Your task to perform on an android device: Empty the shopping cart on ebay. Search for "usb-a" on ebay, select the first entry, add it to the cart, then select checkout. Image 0: 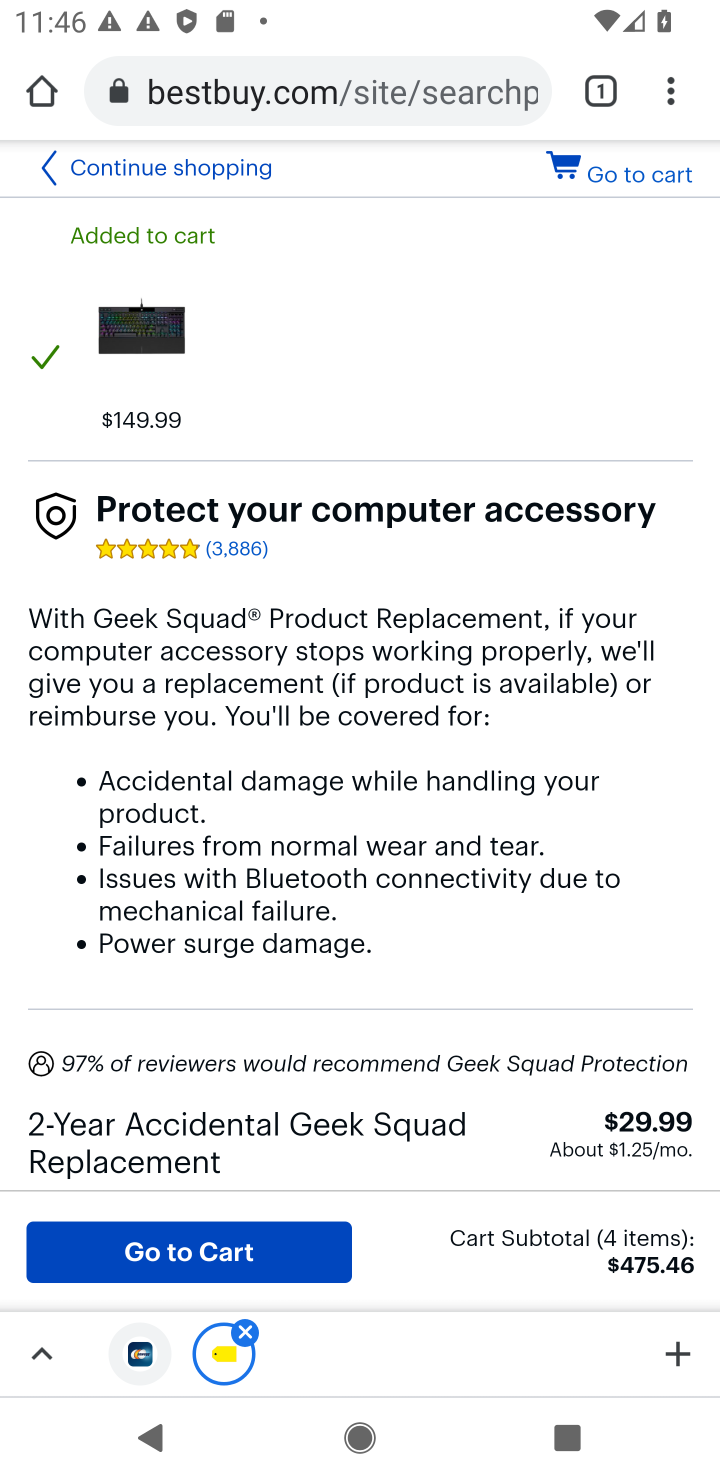
Step 0: click (290, 111)
Your task to perform on an android device: Empty the shopping cart on ebay. Search for "usb-a" on ebay, select the first entry, add it to the cart, then select checkout. Image 1: 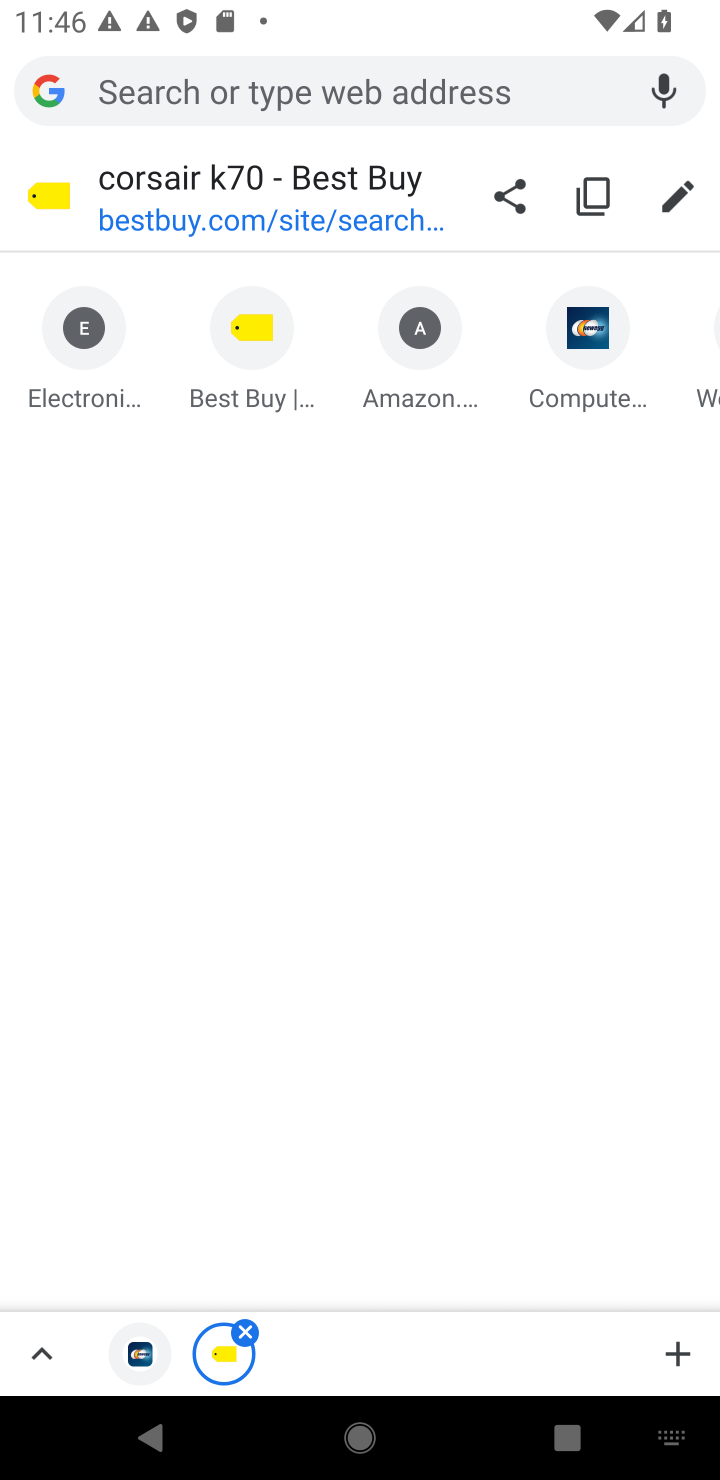
Step 1: type "ebay.com"
Your task to perform on an android device: Empty the shopping cart on ebay. Search for "usb-a" on ebay, select the first entry, add it to the cart, then select checkout. Image 2: 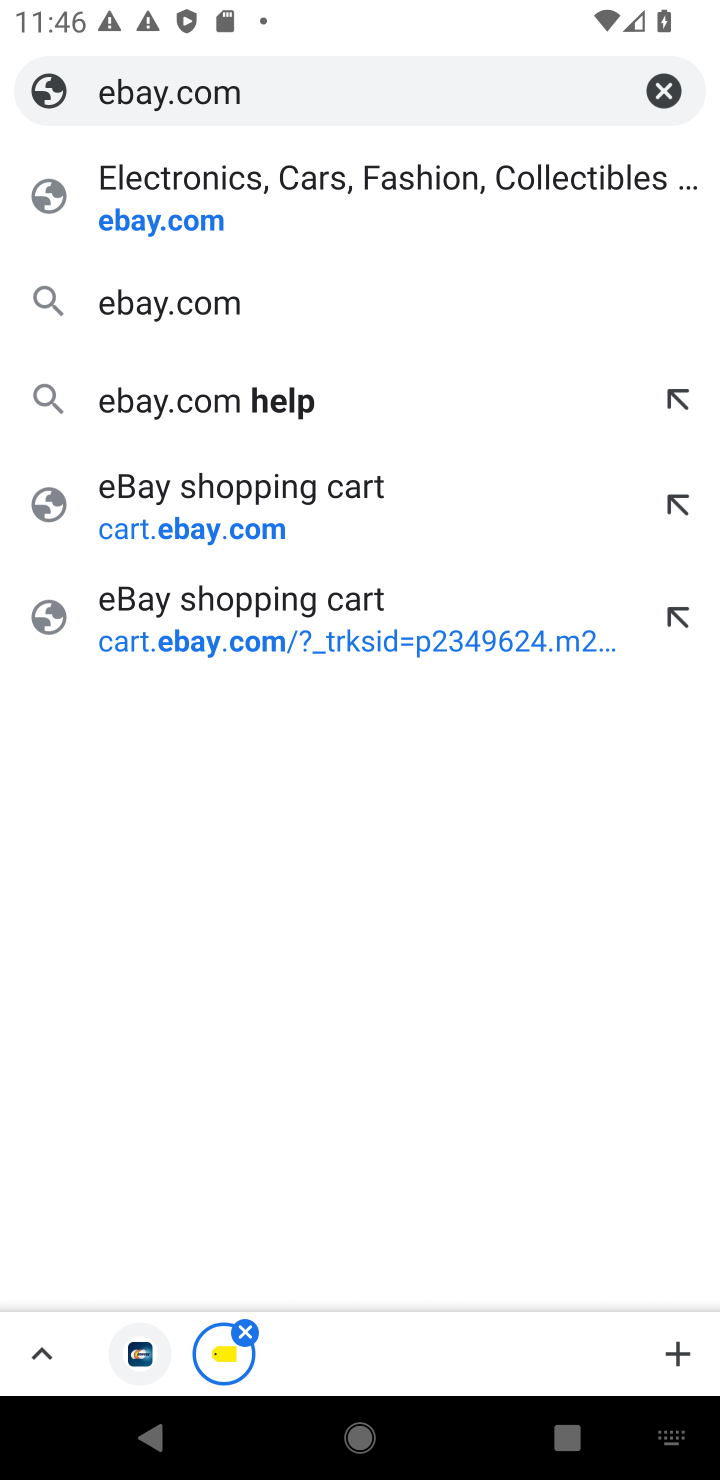
Step 2: click (188, 216)
Your task to perform on an android device: Empty the shopping cart on ebay. Search for "usb-a" on ebay, select the first entry, add it to the cart, then select checkout. Image 3: 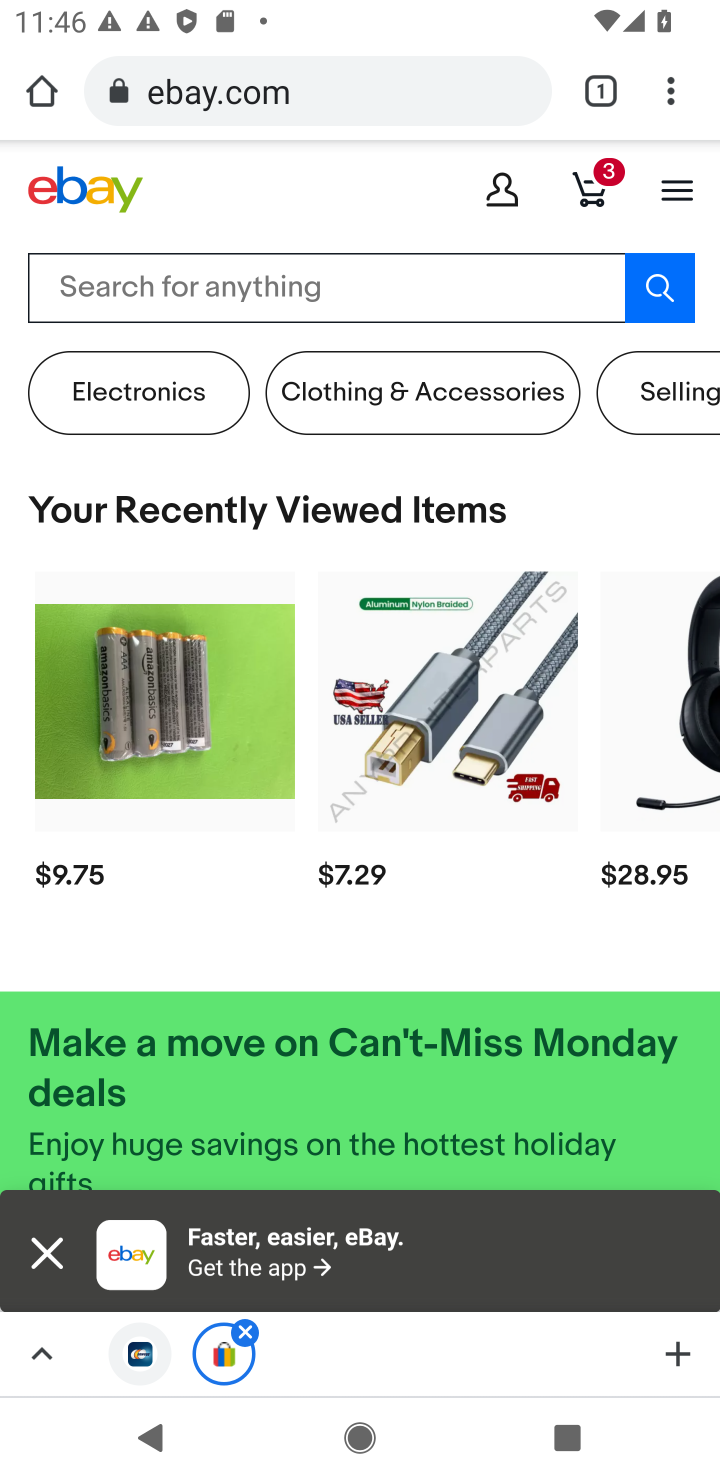
Step 3: click (599, 198)
Your task to perform on an android device: Empty the shopping cart on ebay. Search for "usb-a" on ebay, select the first entry, add it to the cart, then select checkout. Image 4: 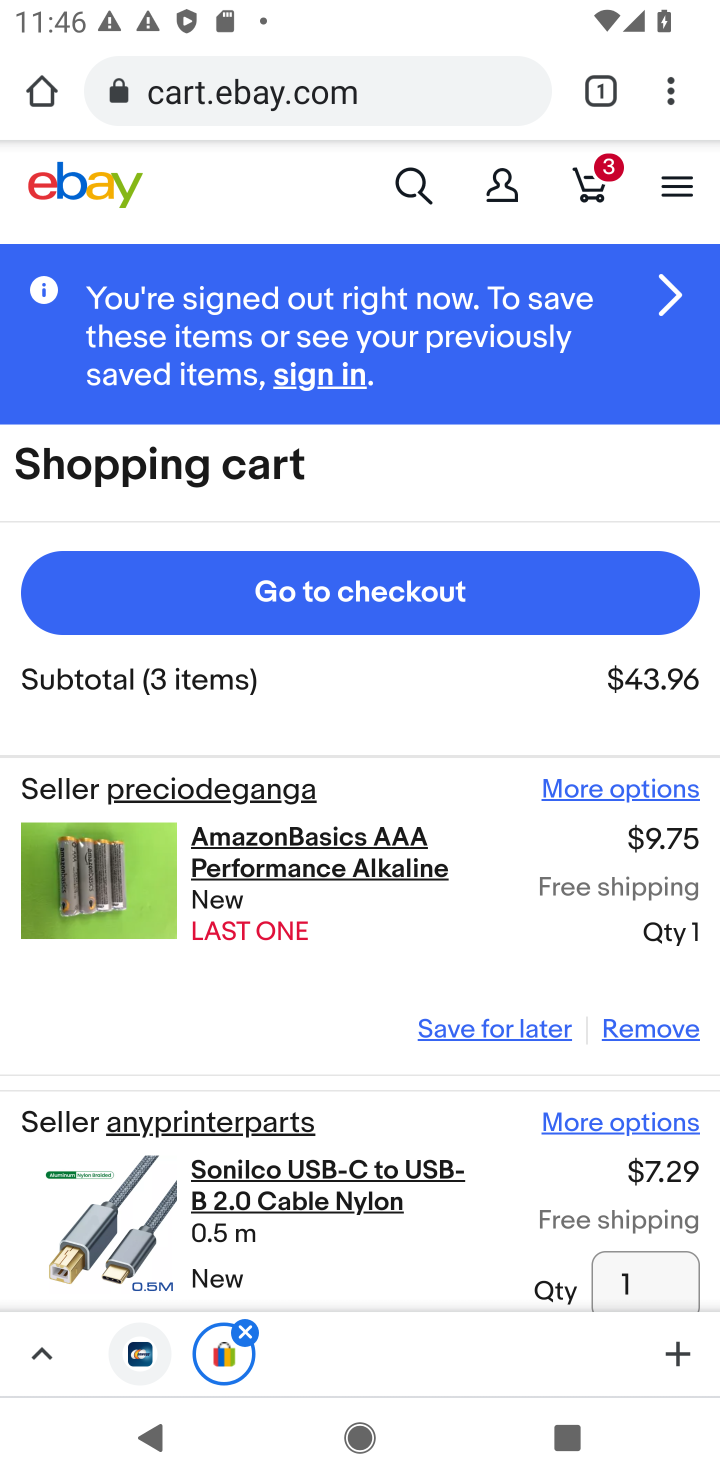
Step 4: click (641, 1036)
Your task to perform on an android device: Empty the shopping cart on ebay. Search for "usb-a" on ebay, select the first entry, add it to the cart, then select checkout. Image 5: 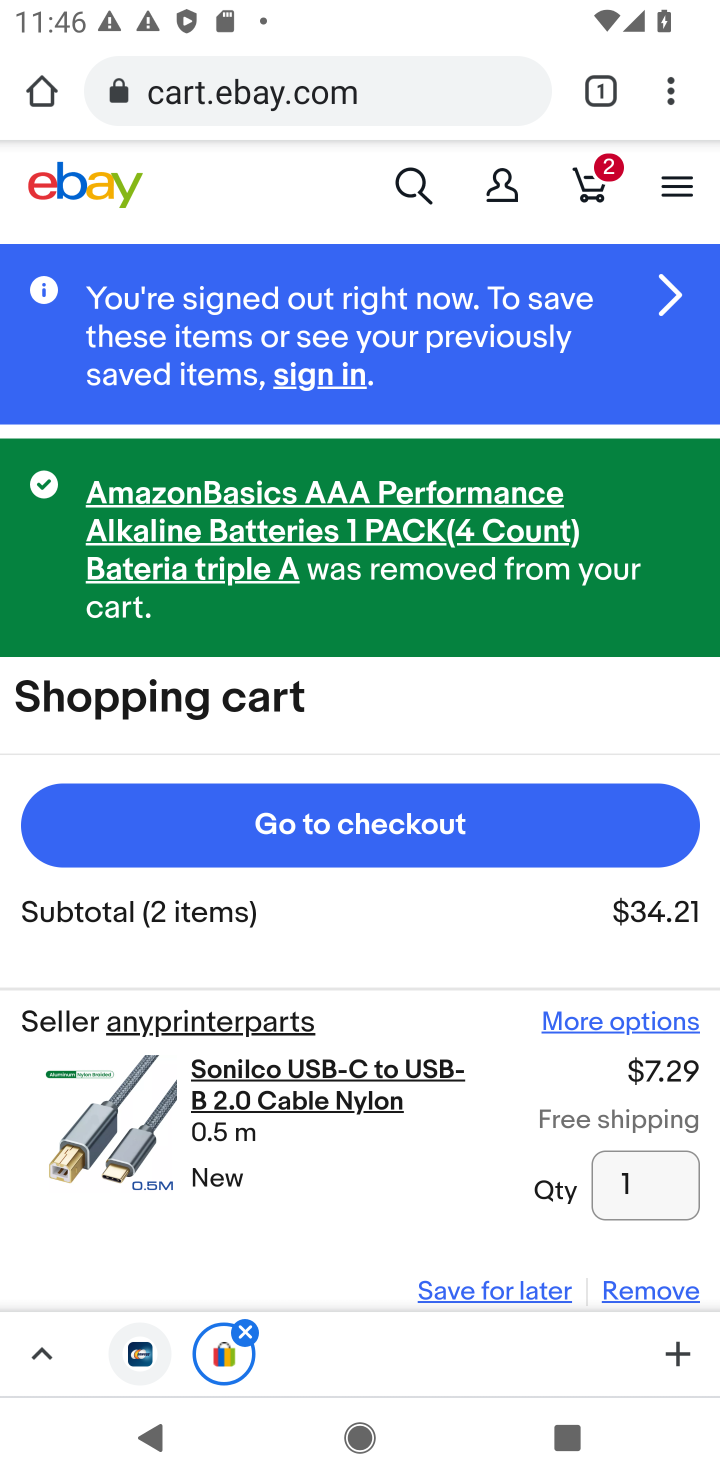
Step 5: click (640, 1292)
Your task to perform on an android device: Empty the shopping cart on ebay. Search for "usb-a" on ebay, select the first entry, add it to the cart, then select checkout. Image 6: 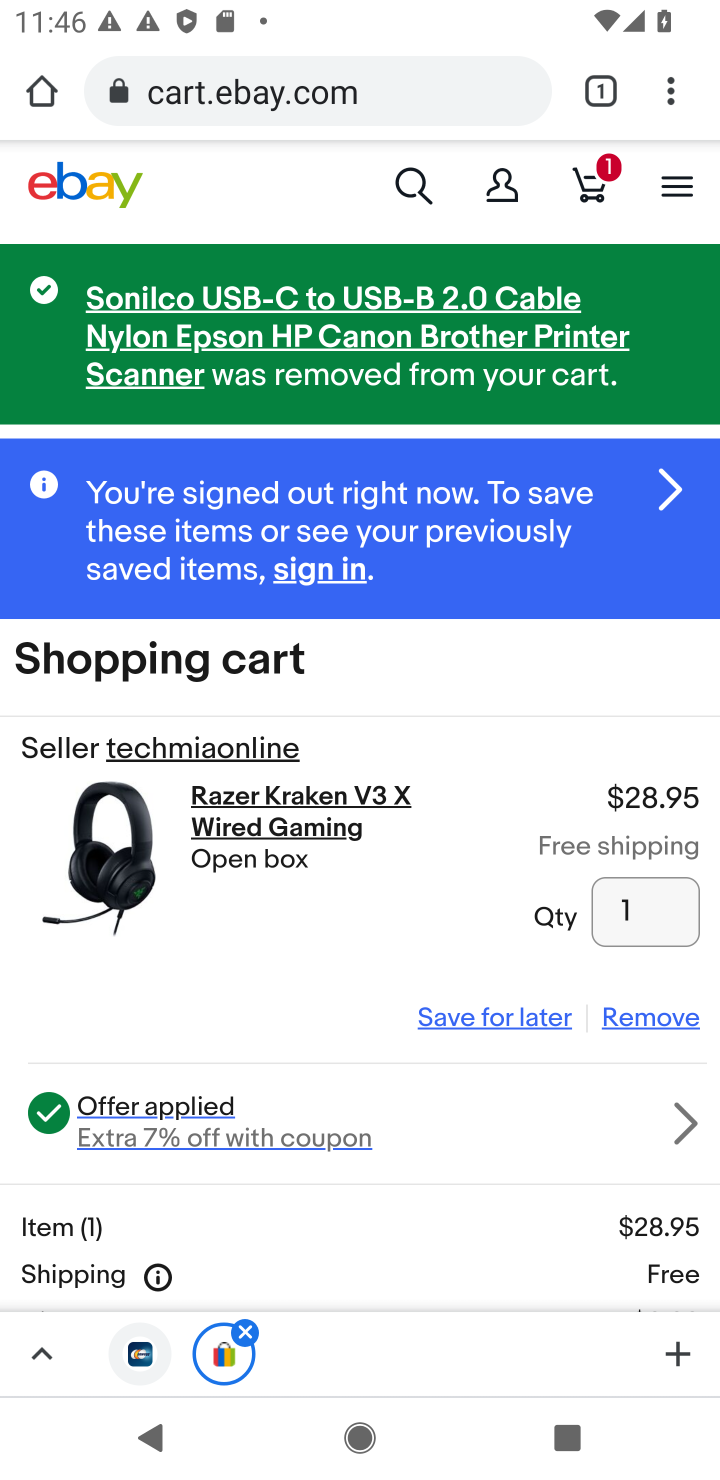
Step 6: click (640, 1023)
Your task to perform on an android device: Empty the shopping cart on ebay. Search for "usb-a" on ebay, select the first entry, add it to the cart, then select checkout. Image 7: 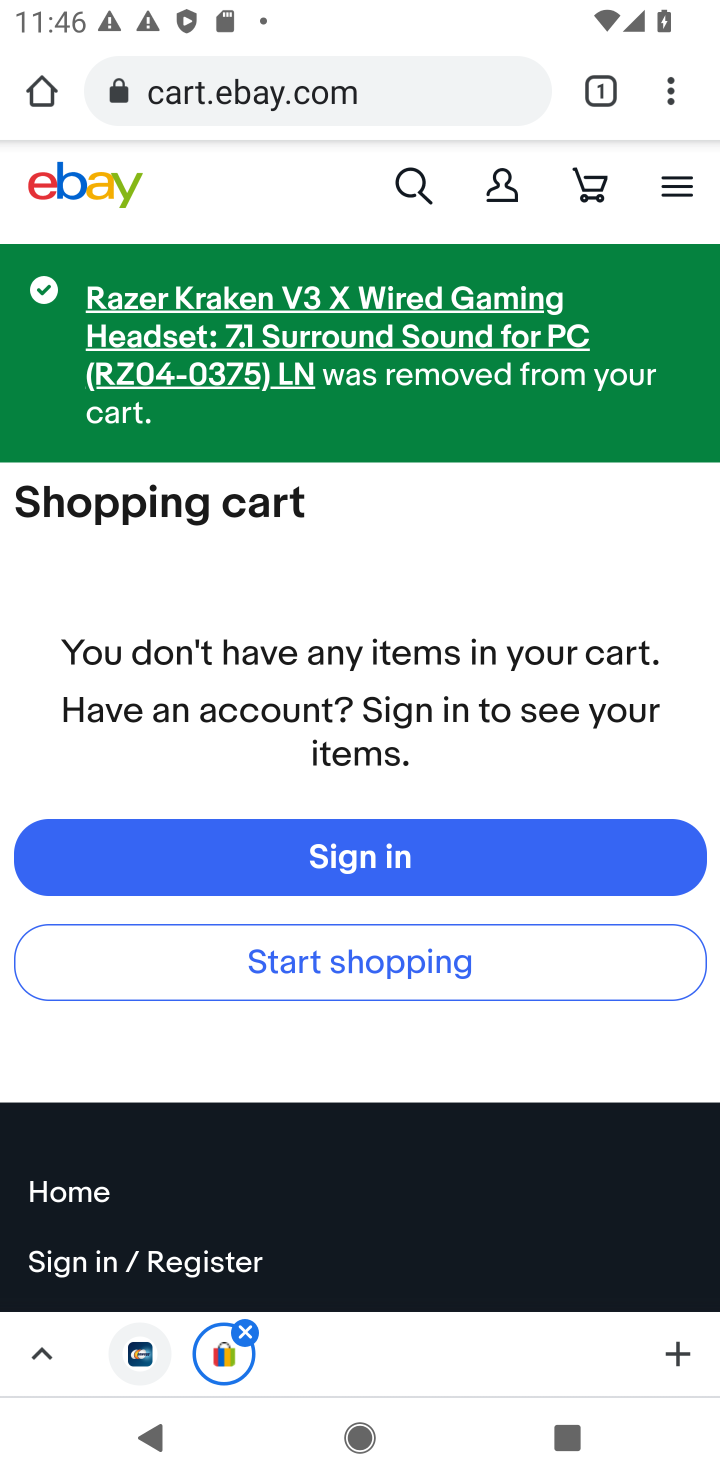
Step 7: click (406, 187)
Your task to perform on an android device: Empty the shopping cart on ebay. Search for "usb-a" on ebay, select the first entry, add it to the cart, then select checkout. Image 8: 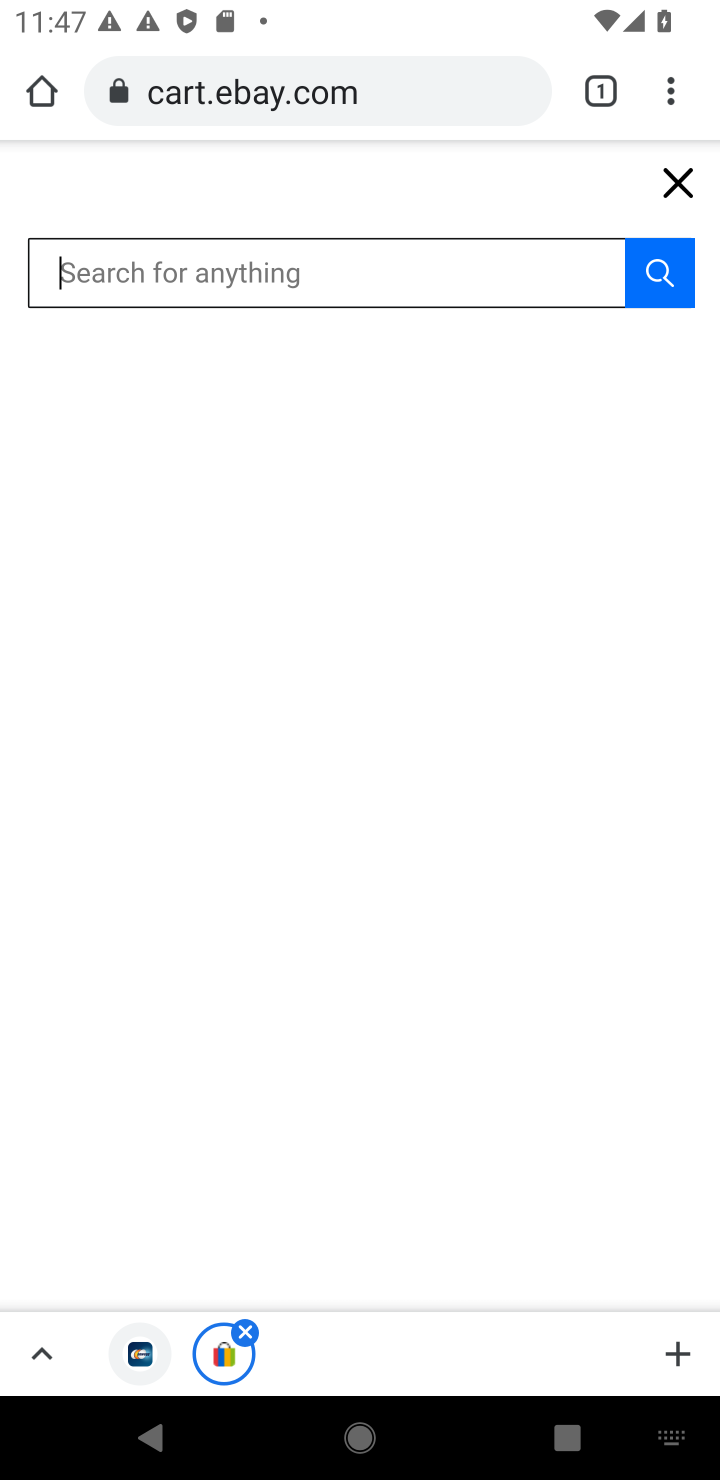
Step 8: type "usb-b"
Your task to perform on an android device: Empty the shopping cart on ebay. Search for "usb-a" on ebay, select the first entry, add it to the cart, then select checkout. Image 9: 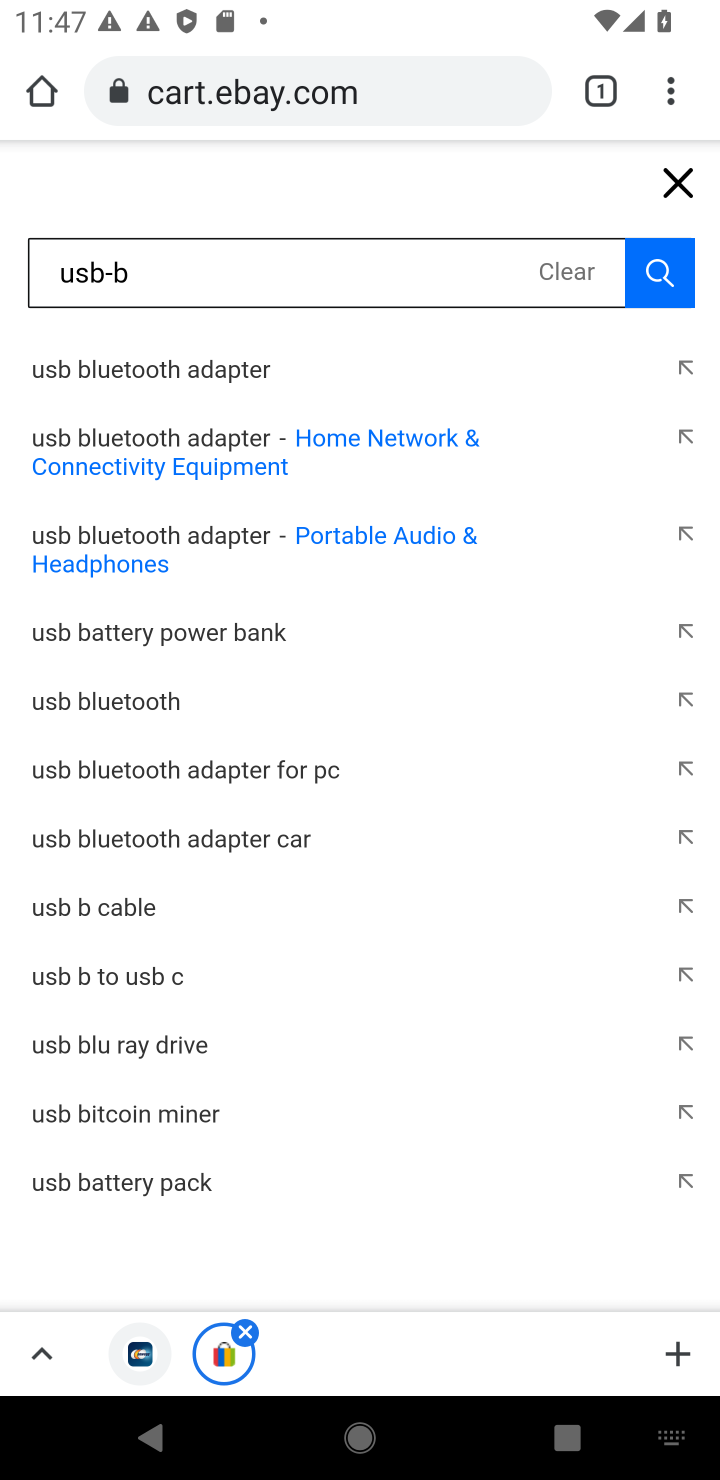
Step 9: click (582, 259)
Your task to perform on an android device: Empty the shopping cart on ebay. Search for "usb-a" on ebay, select the first entry, add it to the cart, then select checkout. Image 10: 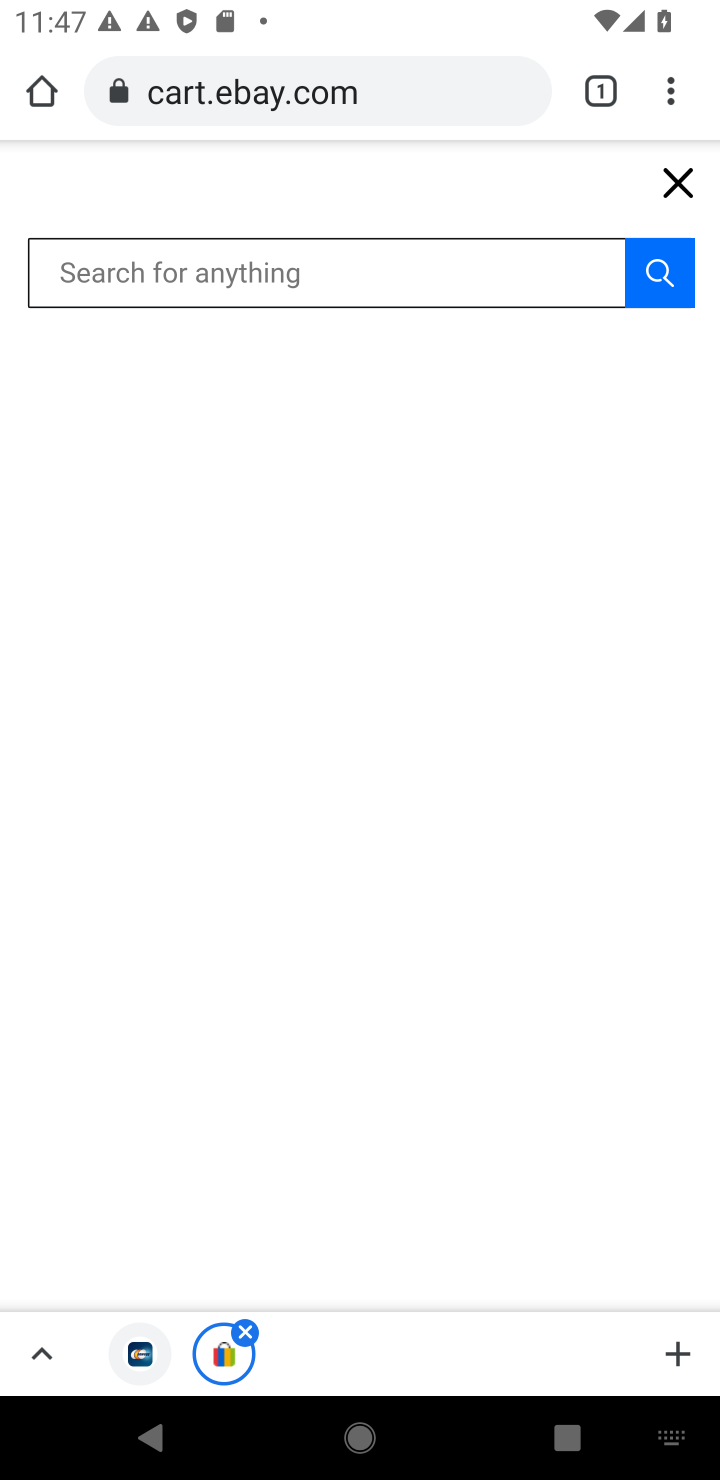
Step 10: click (342, 281)
Your task to perform on an android device: Empty the shopping cart on ebay. Search for "usb-a" on ebay, select the first entry, add it to the cart, then select checkout. Image 11: 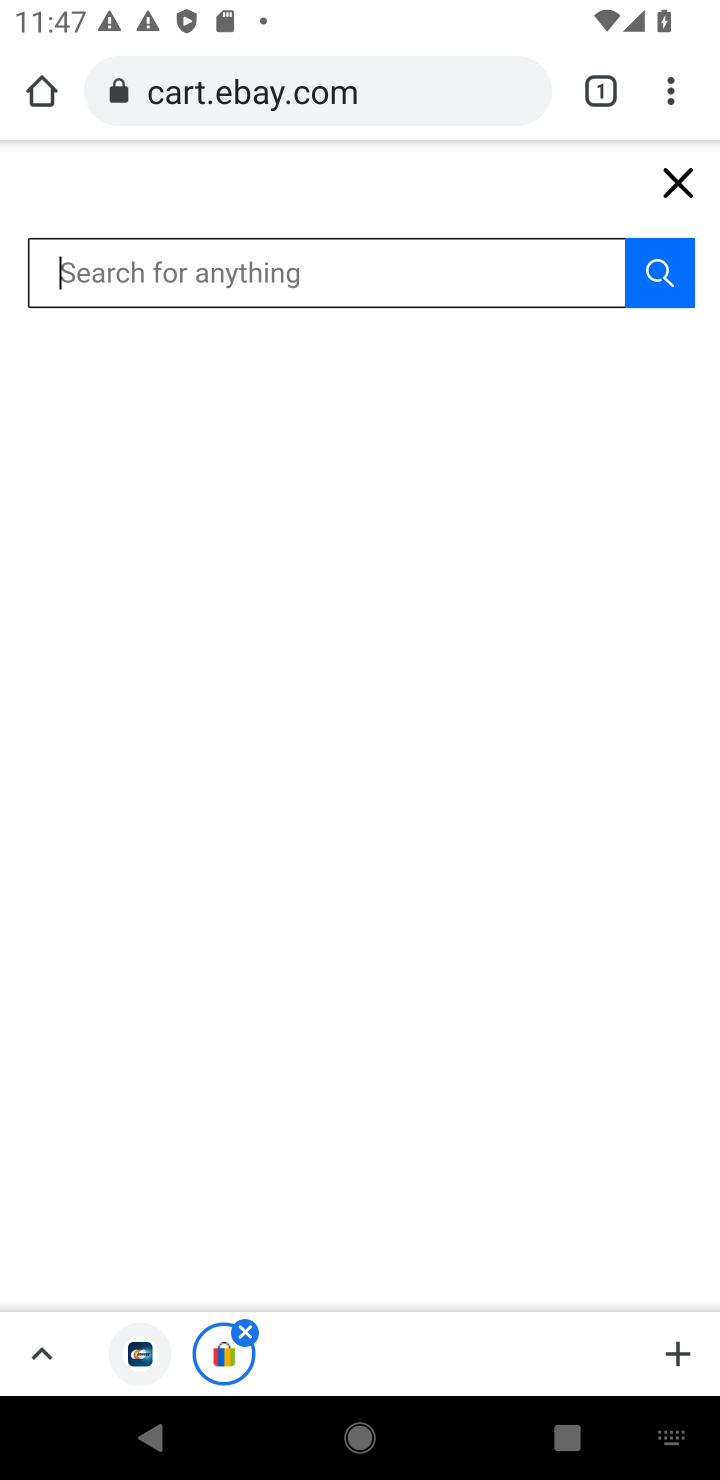
Step 11: type "usb-a"
Your task to perform on an android device: Empty the shopping cart on ebay. Search for "usb-a" on ebay, select the first entry, add it to the cart, then select checkout. Image 12: 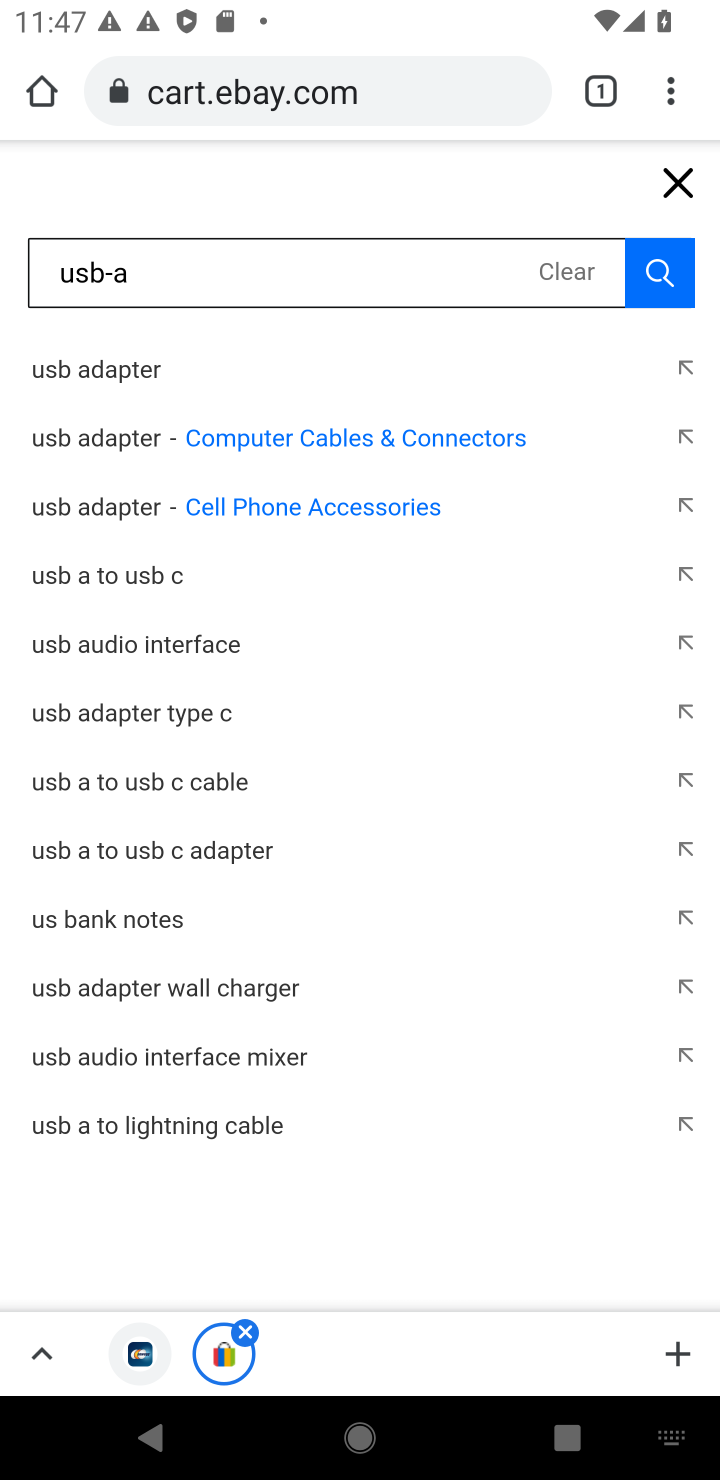
Step 12: click (655, 286)
Your task to perform on an android device: Empty the shopping cart on ebay. Search for "usb-a" on ebay, select the first entry, add it to the cart, then select checkout. Image 13: 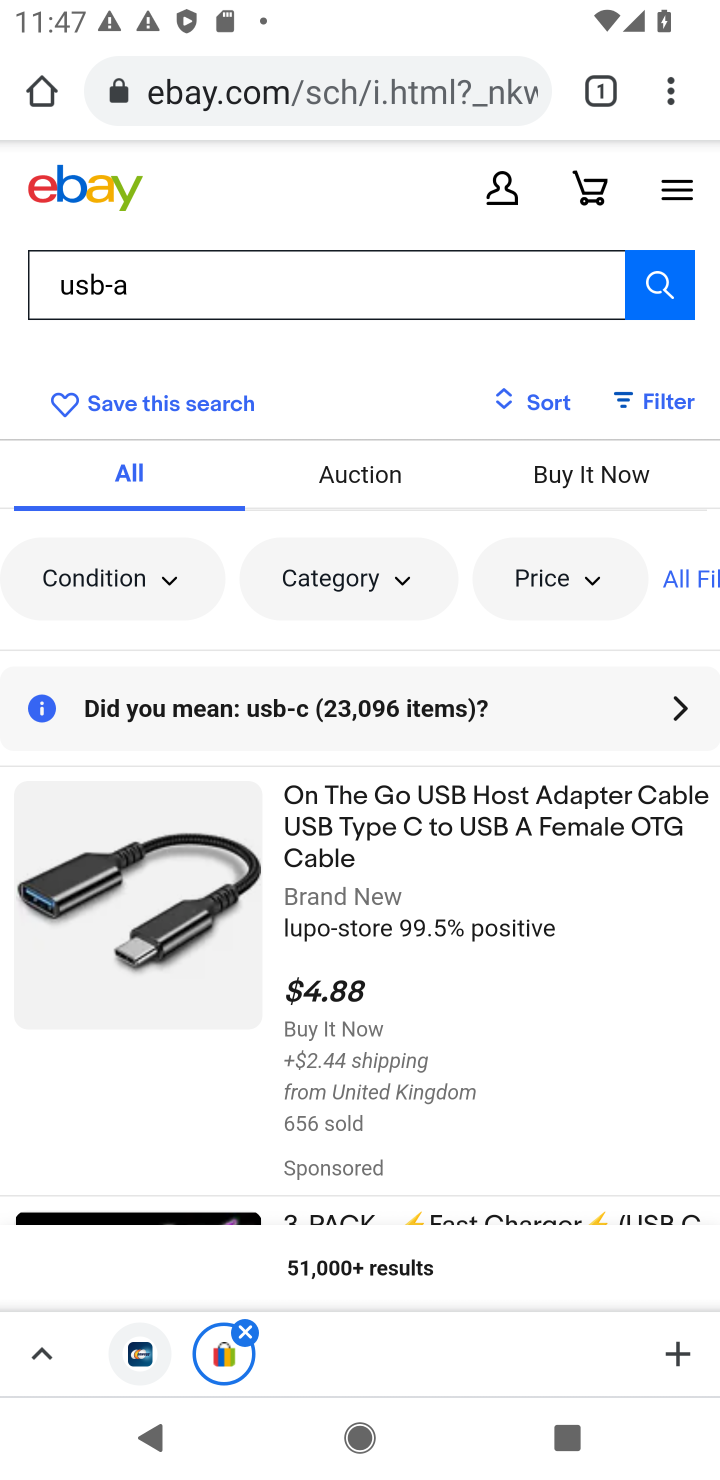
Step 13: drag from (394, 1009) to (392, 663)
Your task to perform on an android device: Empty the shopping cart on ebay. Search for "usb-a" on ebay, select the first entry, add it to the cart, then select checkout. Image 14: 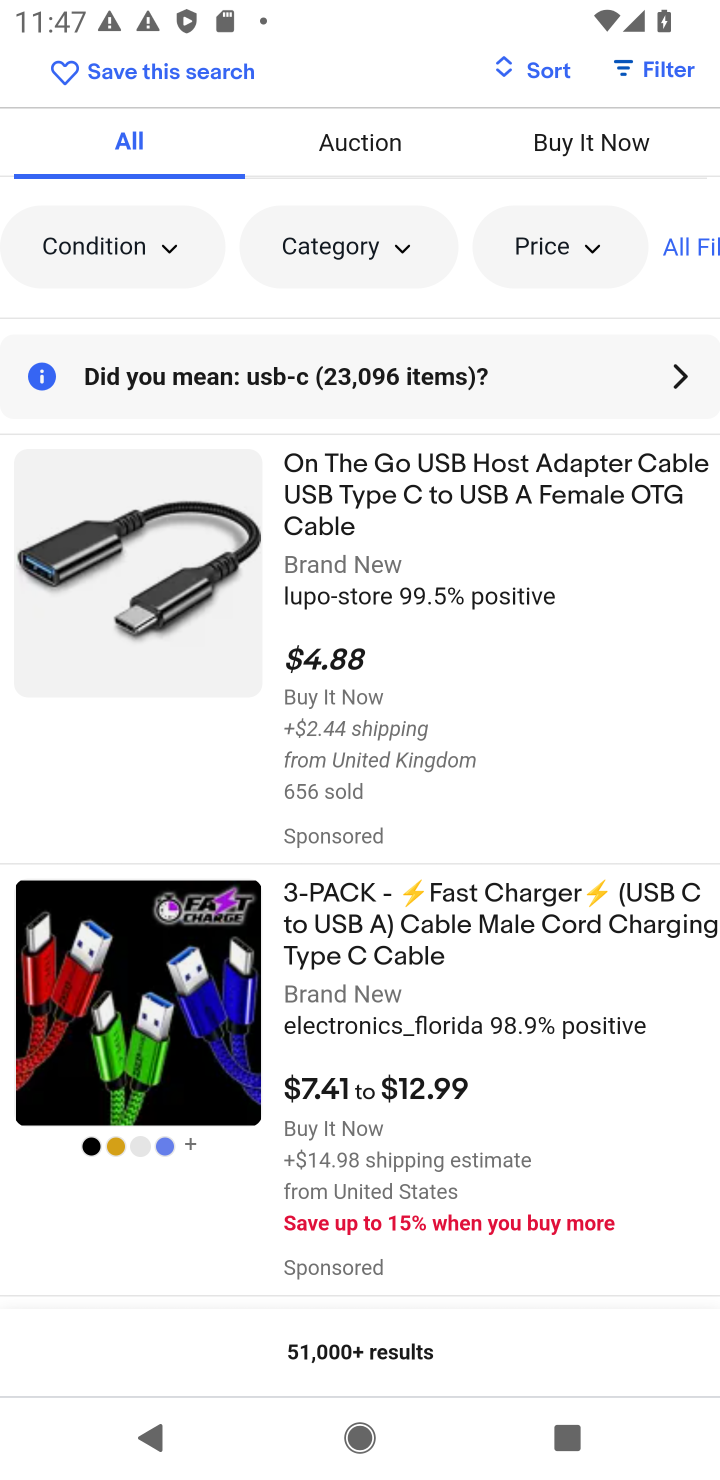
Step 14: click (338, 518)
Your task to perform on an android device: Empty the shopping cart on ebay. Search for "usb-a" on ebay, select the first entry, add it to the cart, then select checkout. Image 15: 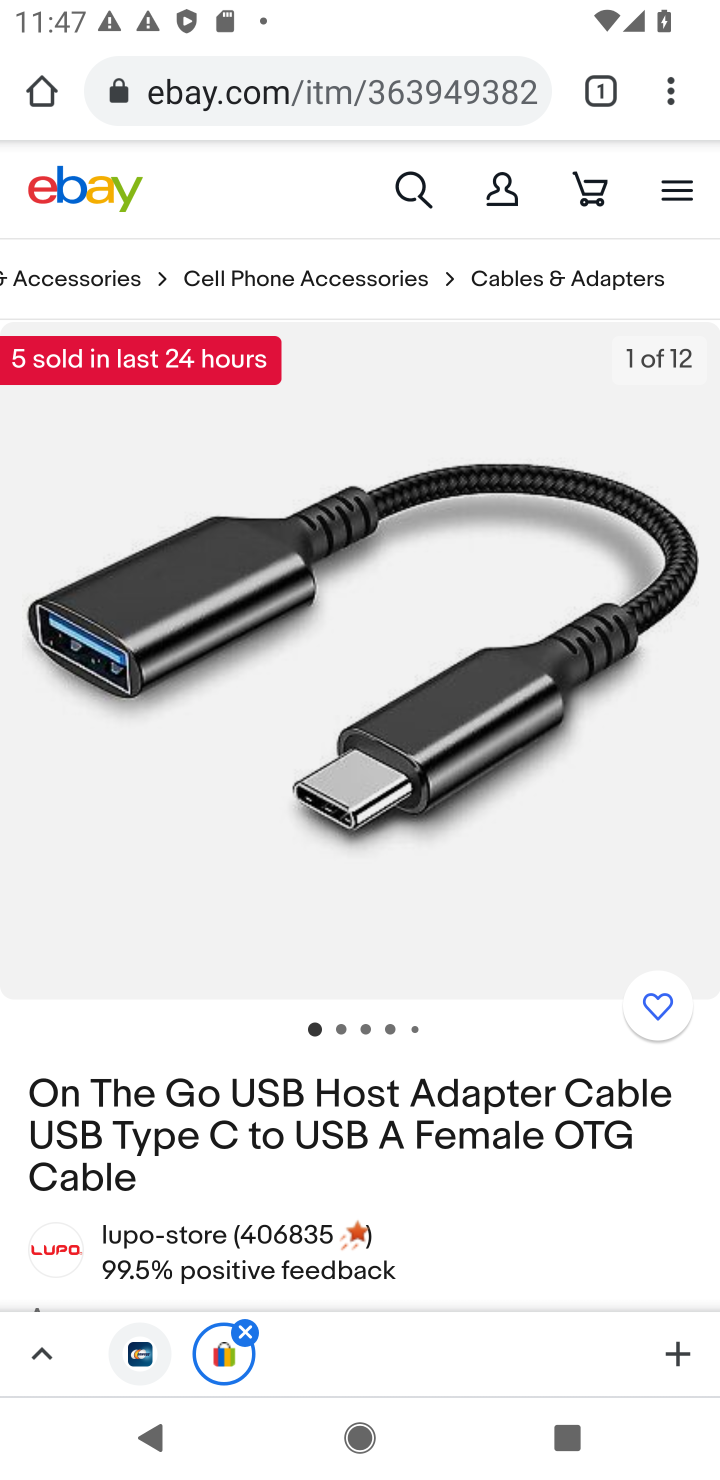
Step 15: drag from (428, 1023) to (441, 503)
Your task to perform on an android device: Empty the shopping cart on ebay. Search for "usb-a" on ebay, select the first entry, add it to the cart, then select checkout. Image 16: 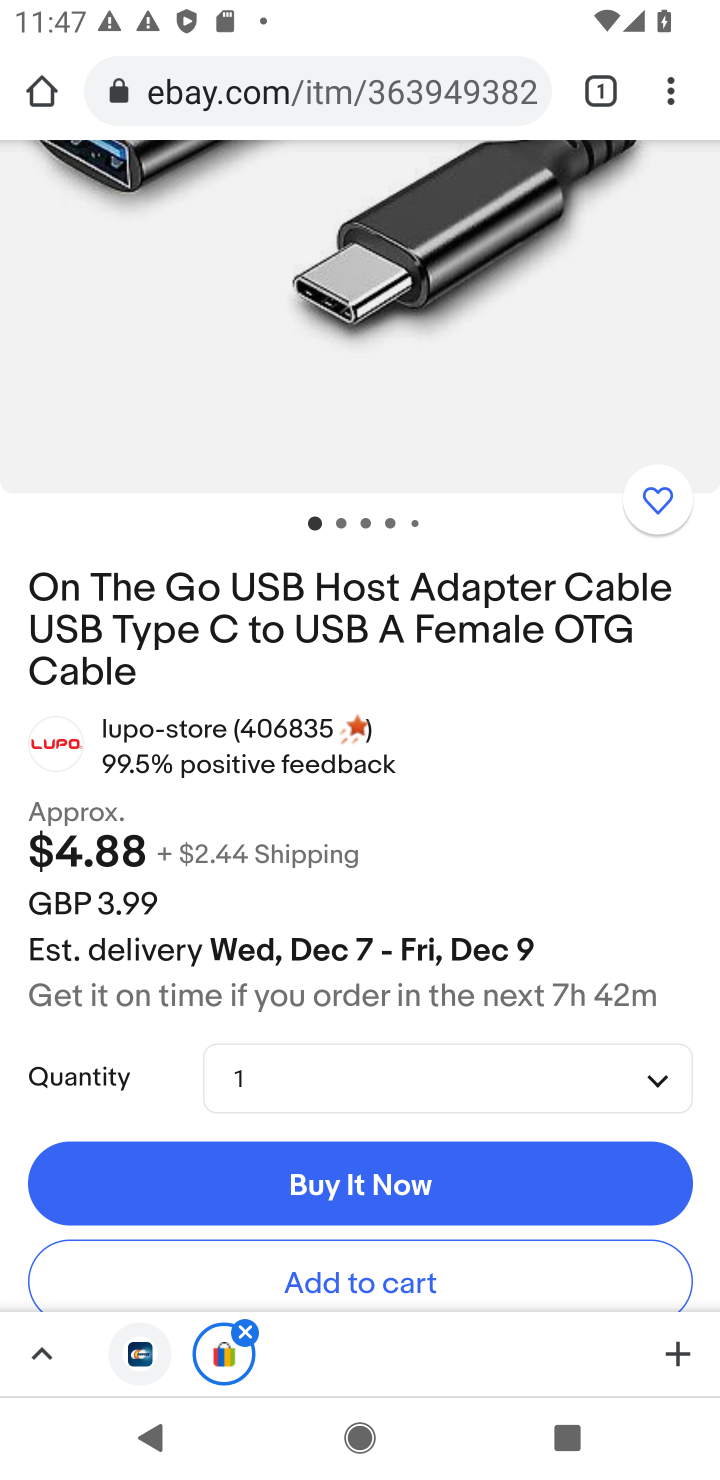
Step 16: click (311, 1284)
Your task to perform on an android device: Empty the shopping cart on ebay. Search for "usb-a" on ebay, select the first entry, add it to the cart, then select checkout. Image 17: 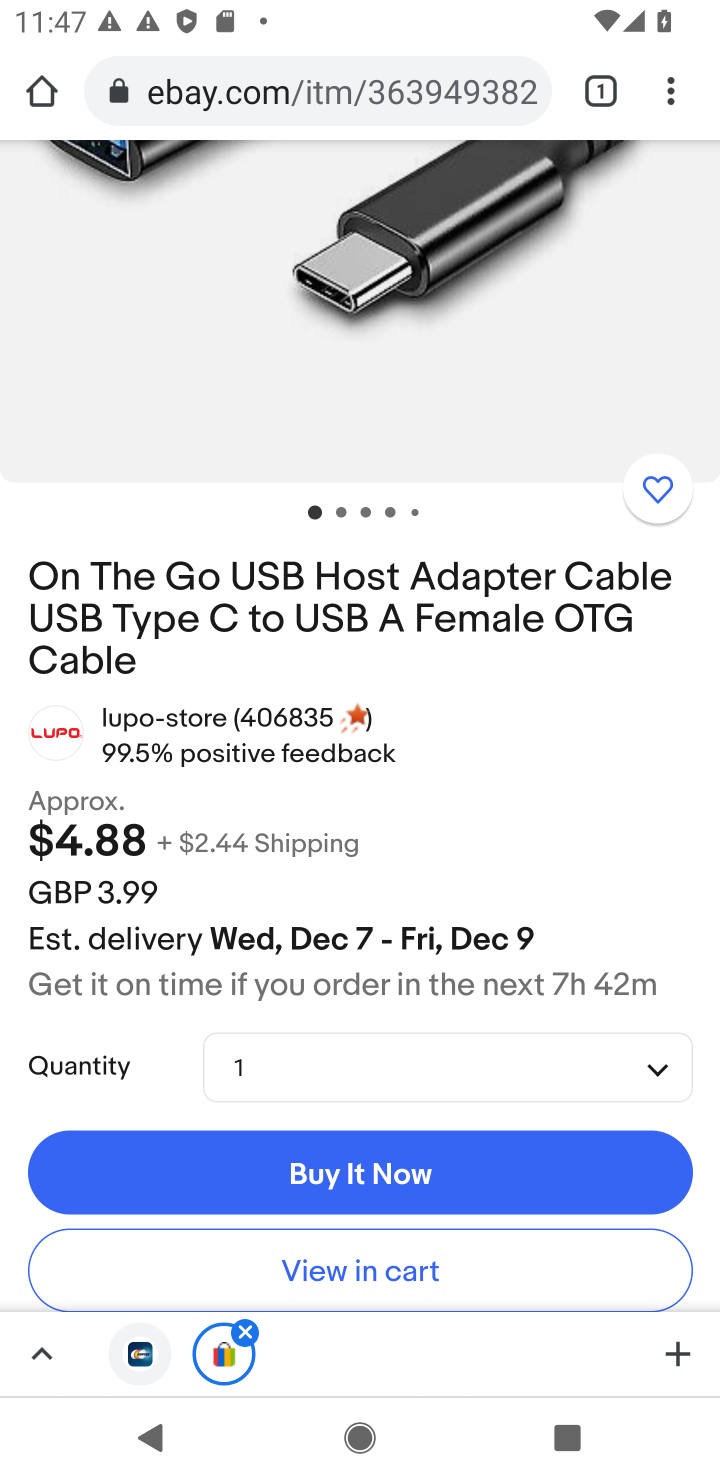
Step 17: click (313, 1275)
Your task to perform on an android device: Empty the shopping cart on ebay. Search for "usb-a" on ebay, select the first entry, add it to the cart, then select checkout. Image 18: 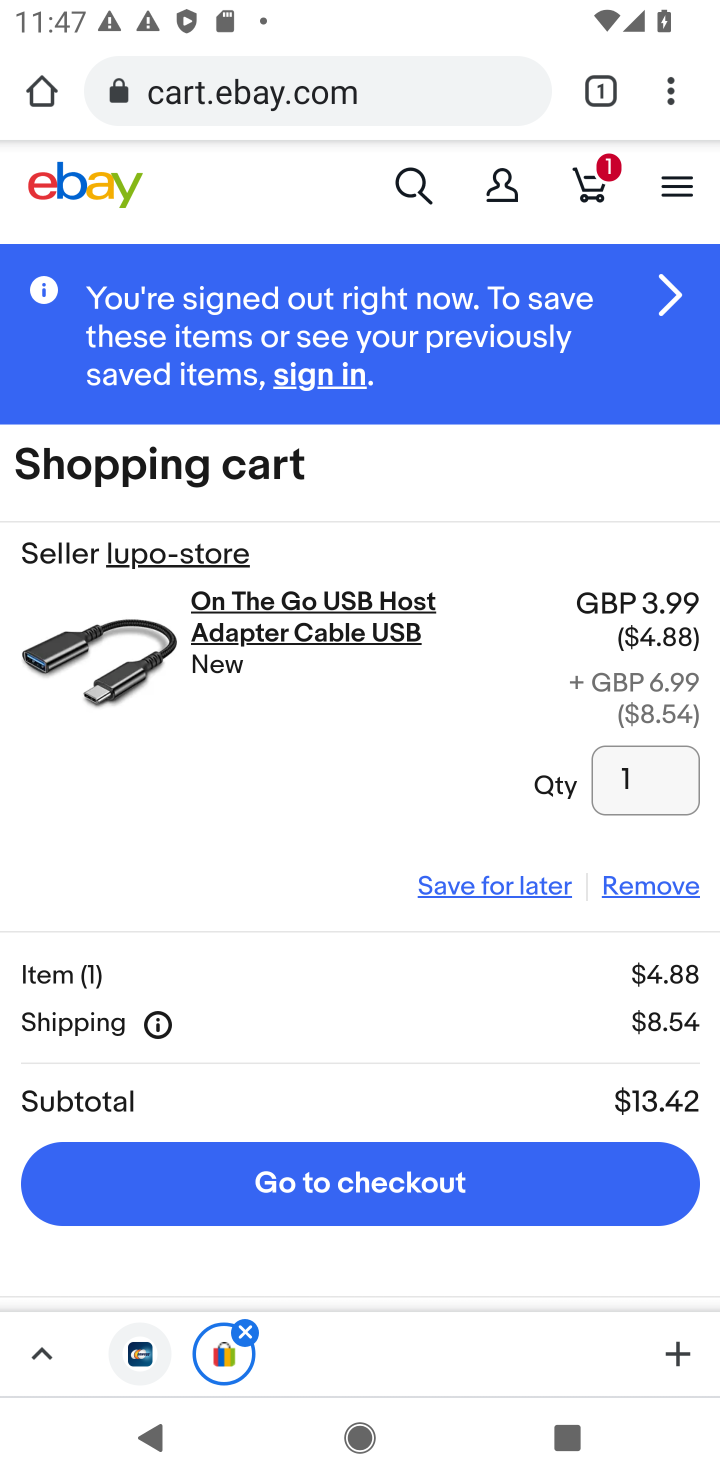
Step 18: click (346, 1194)
Your task to perform on an android device: Empty the shopping cart on ebay. Search for "usb-a" on ebay, select the first entry, add it to the cart, then select checkout. Image 19: 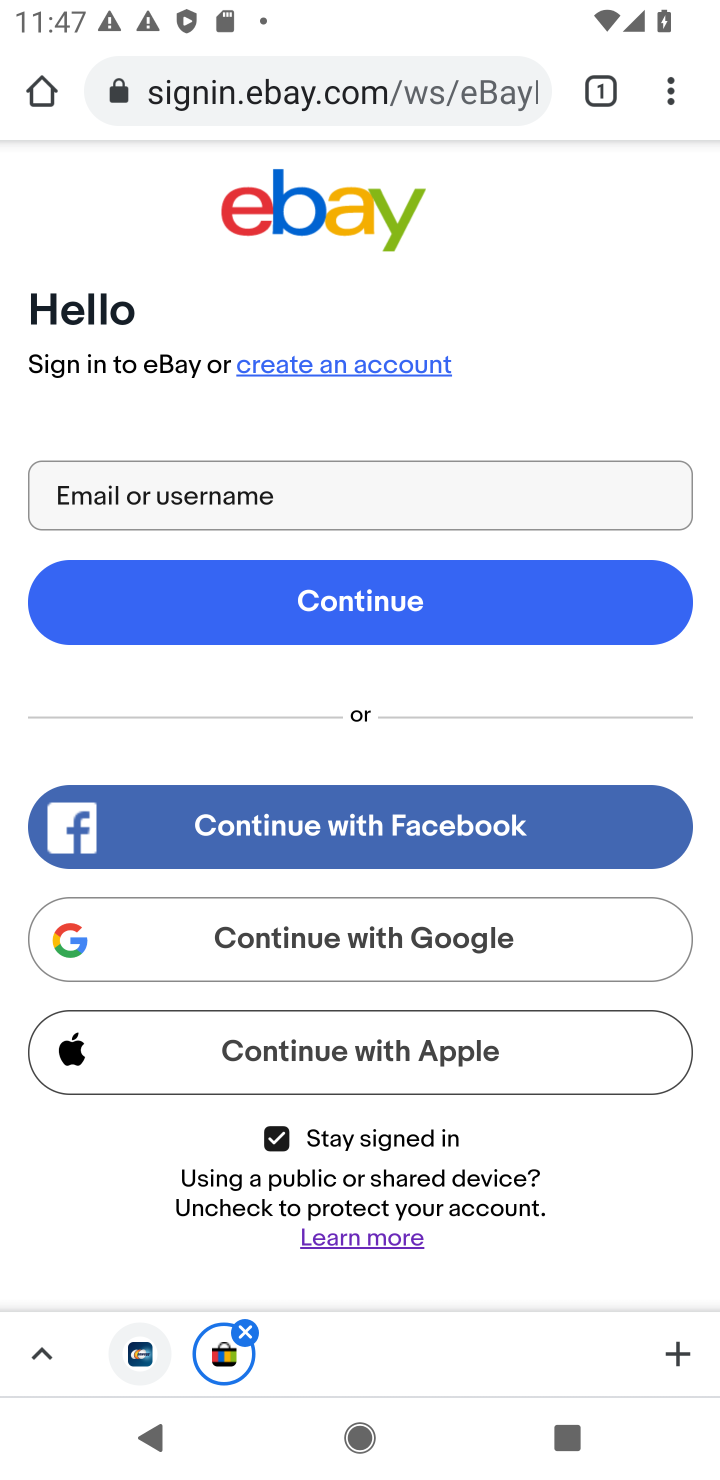
Step 19: task complete